Your task to perform on an android device: change the clock display to digital Image 0: 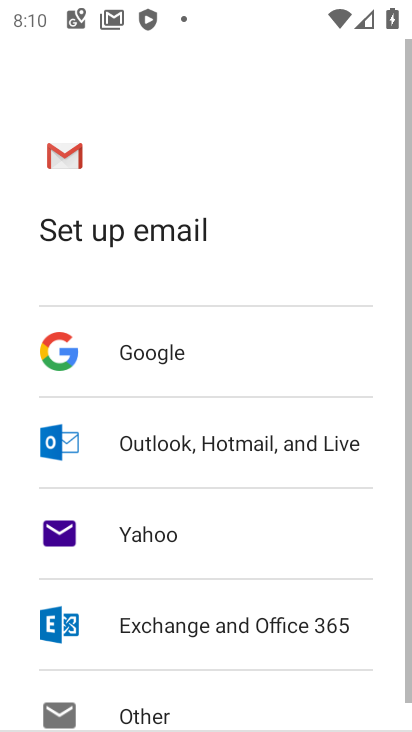
Step 0: press home button
Your task to perform on an android device: change the clock display to digital Image 1: 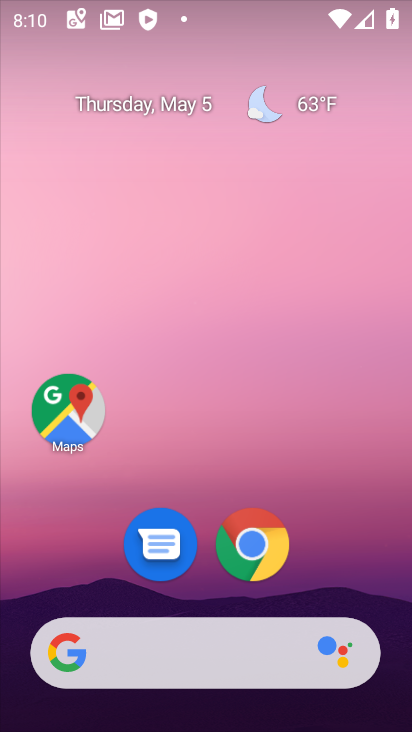
Step 1: drag from (391, 664) to (278, 71)
Your task to perform on an android device: change the clock display to digital Image 2: 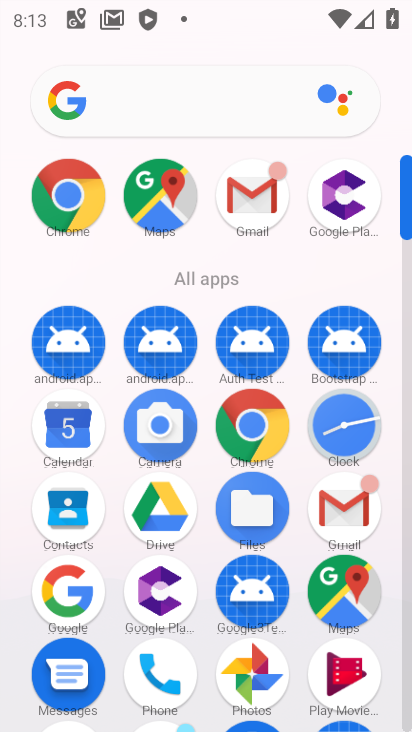
Step 2: click (348, 420)
Your task to perform on an android device: change the clock display to digital Image 3: 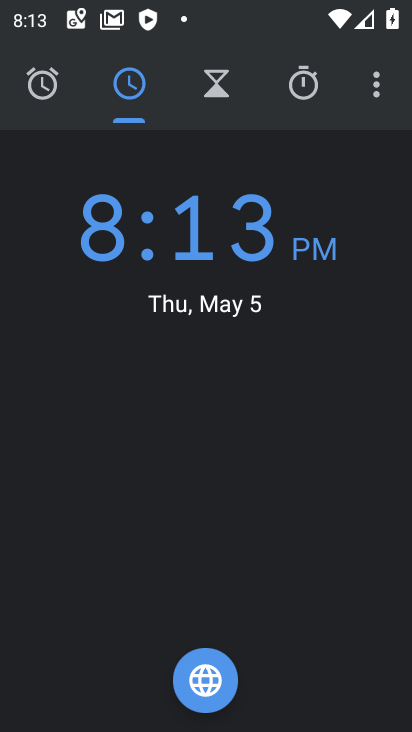
Step 3: click (380, 82)
Your task to perform on an android device: change the clock display to digital Image 4: 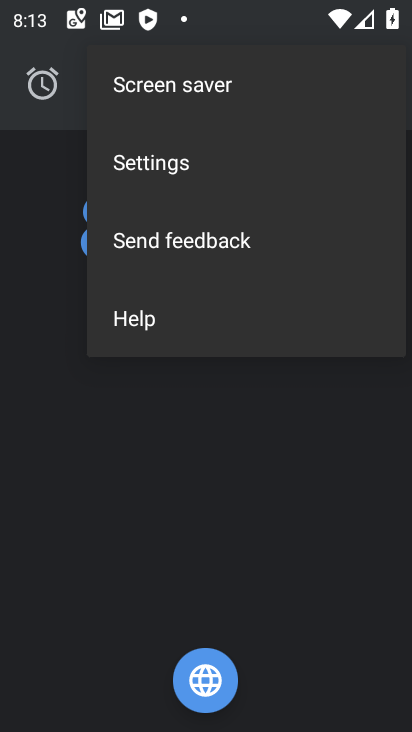
Step 4: click (279, 181)
Your task to perform on an android device: change the clock display to digital Image 5: 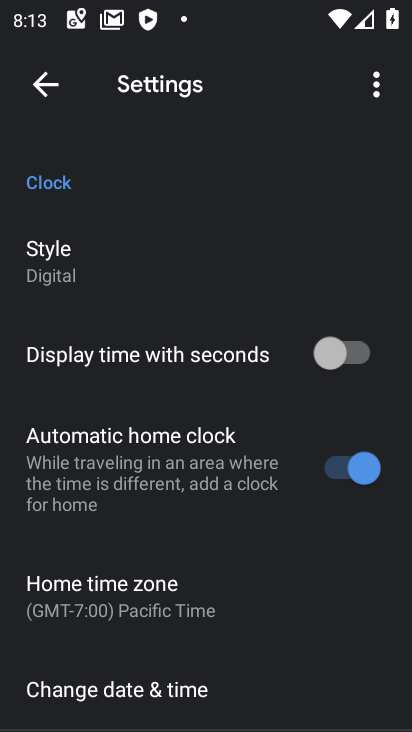
Step 5: click (208, 275)
Your task to perform on an android device: change the clock display to digital Image 6: 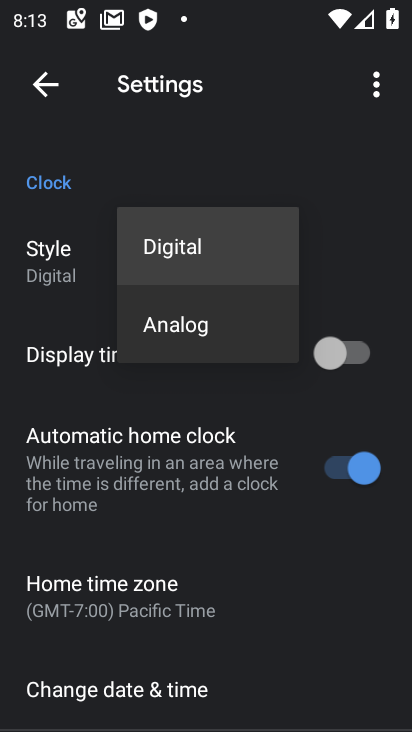
Step 6: click (208, 275)
Your task to perform on an android device: change the clock display to digital Image 7: 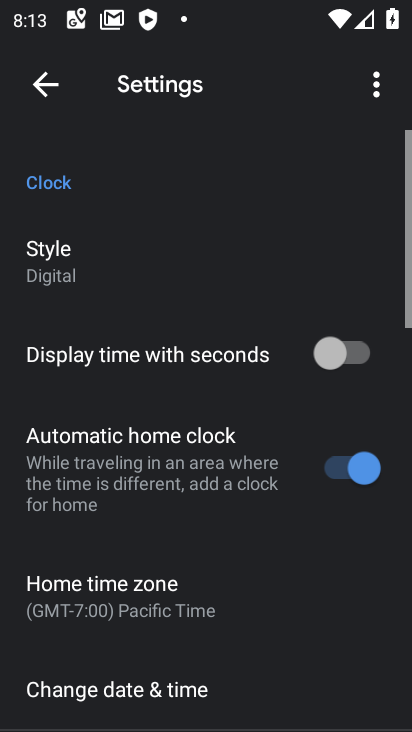
Step 7: task complete